Your task to perform on an android device: Play the last video I watched on Youtube Image 0: 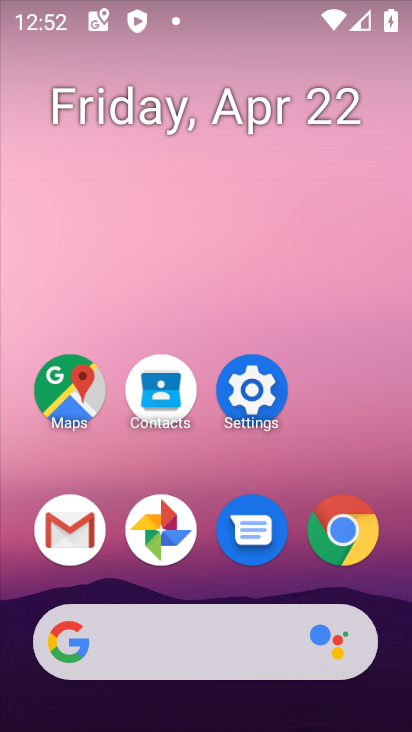
Step 0: drag from (198, 428) to (199, 17)
Your task to perform on an android device: Play the last video I watched on Youtube Image 1: 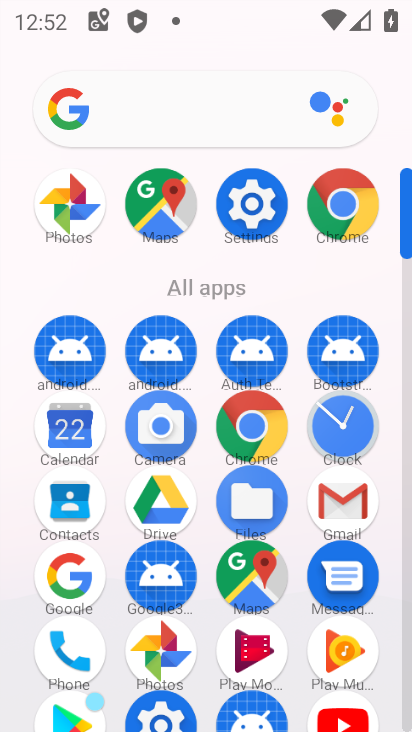
Step 1: click (353, 716)
Your task to perform on an android device: Play the last video I watched on Youtube Image 2: 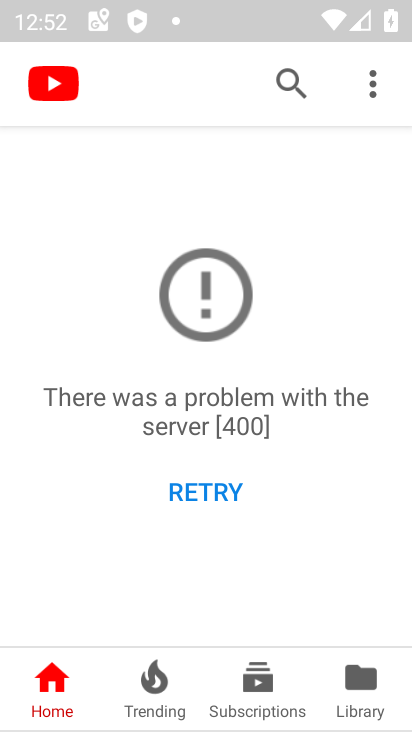
Step 2: click (366, 688)
Your task to perform on an android device: Play the last video I watched on Youtube Image 3: 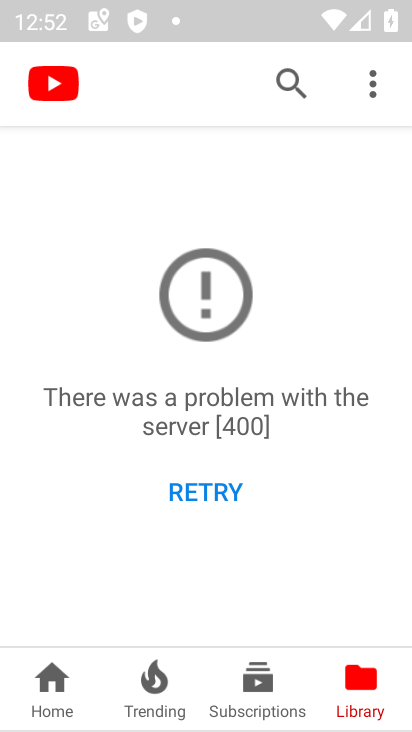
Step 3: click (363, 680)
Your task to perform on an android device: Play the last video I watched on Youtube Image 4: 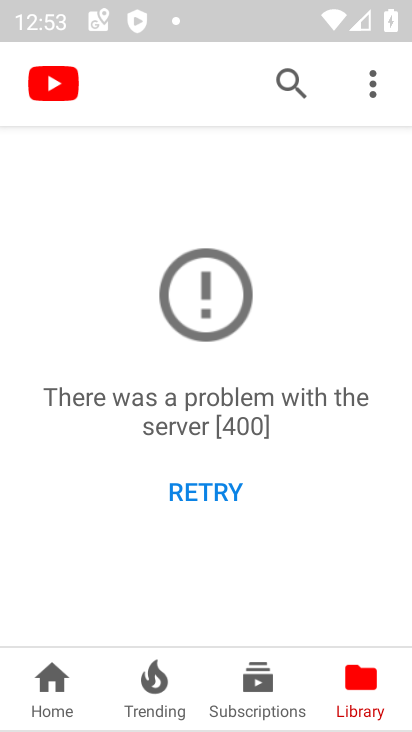
Step 4: task complete